Your task to perform on an android device: Do I have any events today? Image 0: 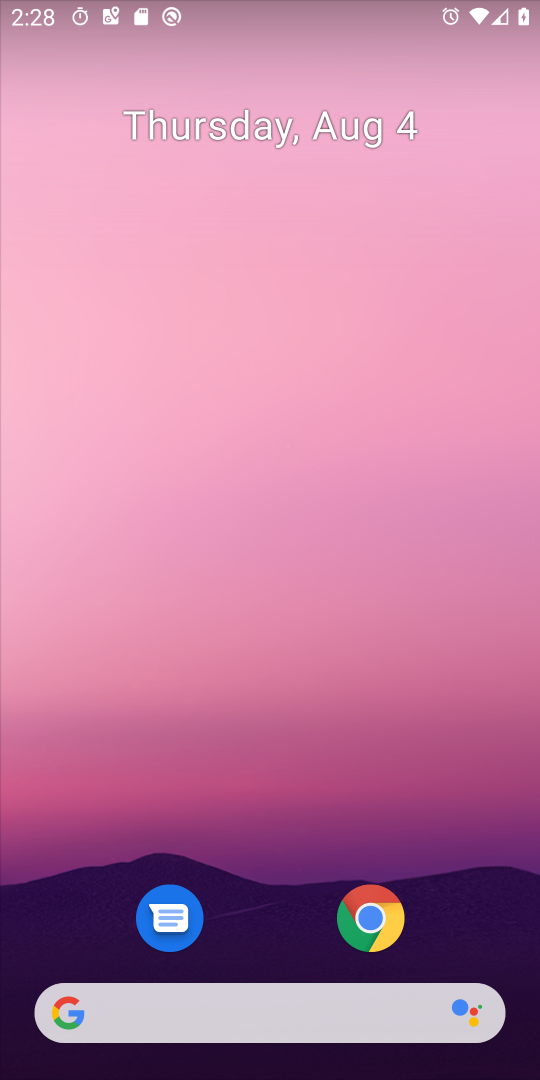
Step 0: drag from (246, 931) to (327, 286)
Your task to perform on an android device: Do I have any events today? Image 1: 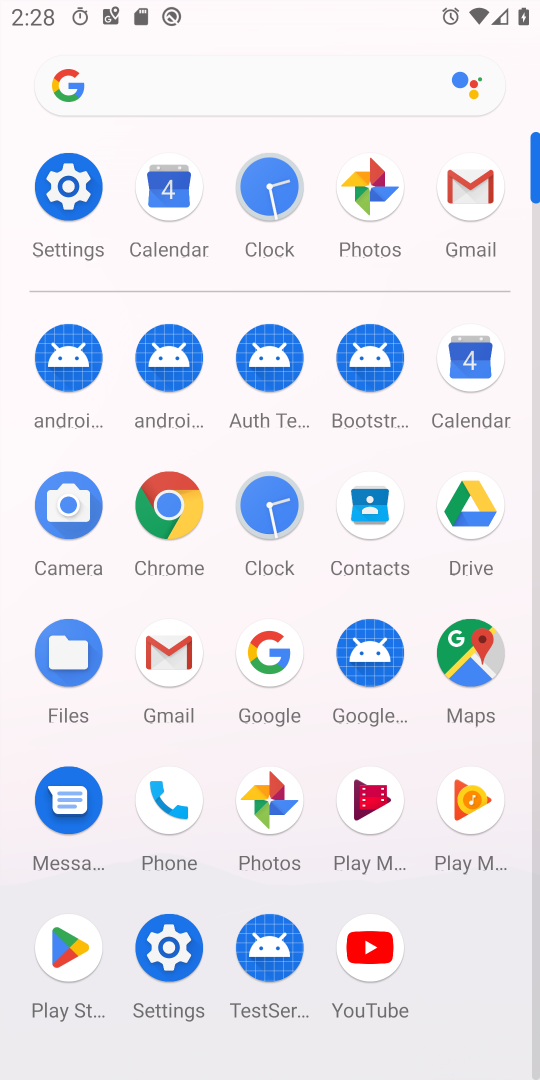
Step 1: click (438, 396)
Your task to perform on an android device: Do I have any events today? Image 2: 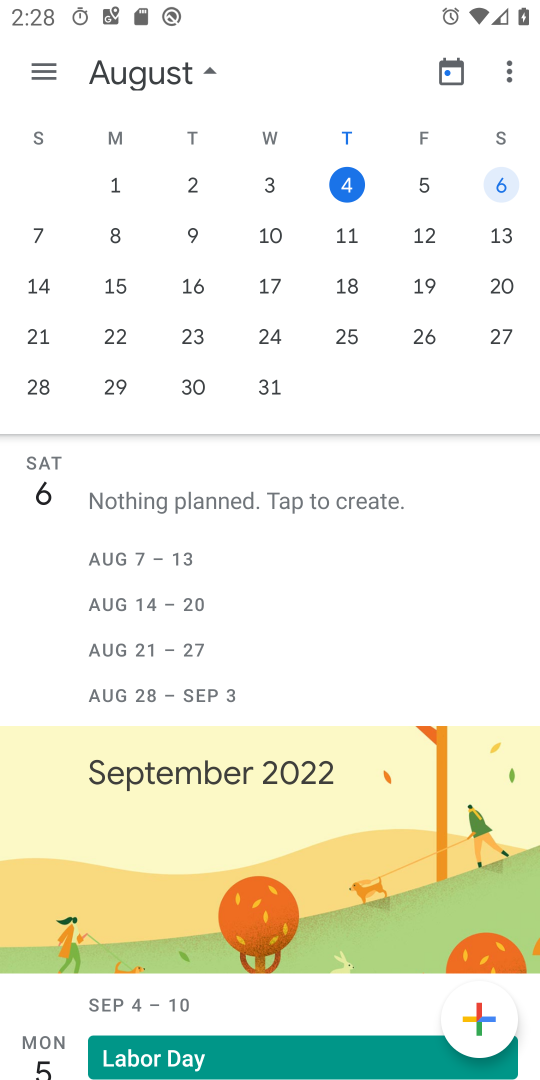
Step 2: click (359, 168)
Your task to perform on an android device: Do I have any events today? Image 3: 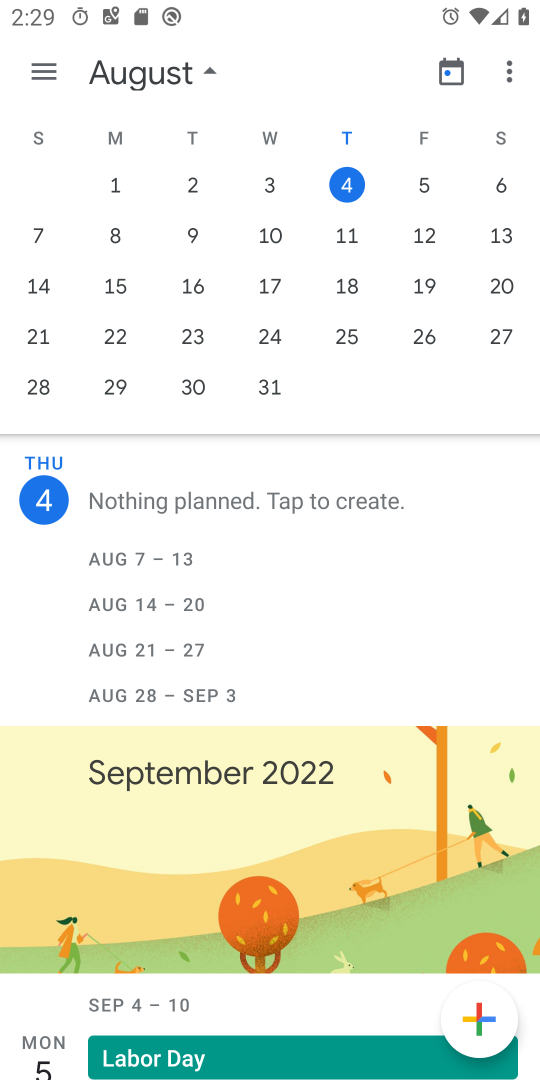
Step 3: task complete